Your task to perform on an android device: turn on location history Image 0: 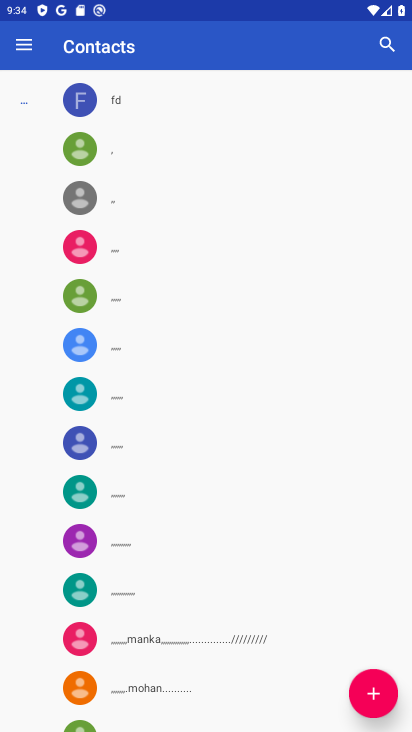
Step 0: press home button
Your task to perform on an android device: turn on location history Image 1: 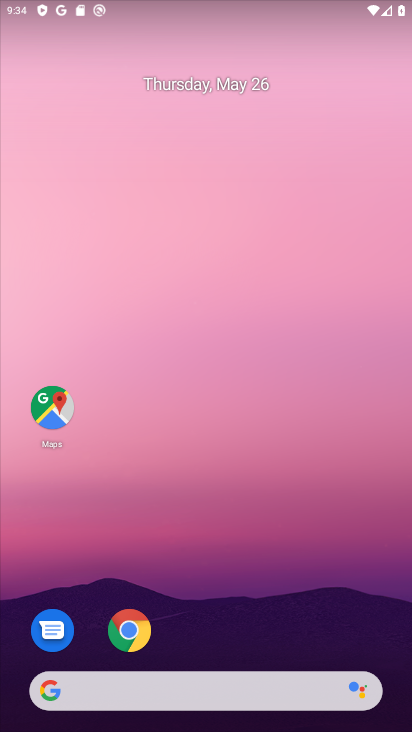
Step 1: drag from (206, 647) to (126, 219)
Your task to perform on an android device: turn on location history Image 2: 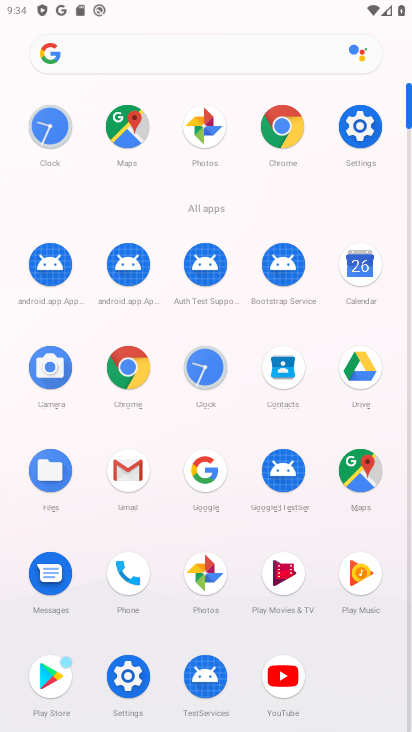
Step 2: click (345, 464)
Your task to perform on an android device: turn on location history Image 3: 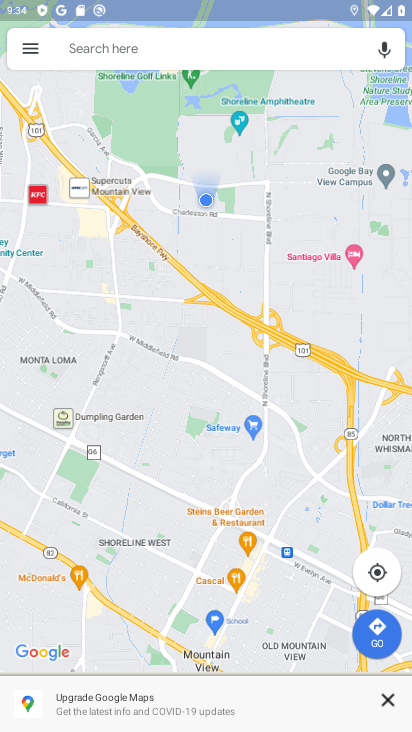
Step 3: click (23, 52)
Your task to perform on an android device: turn on location history Image 4: 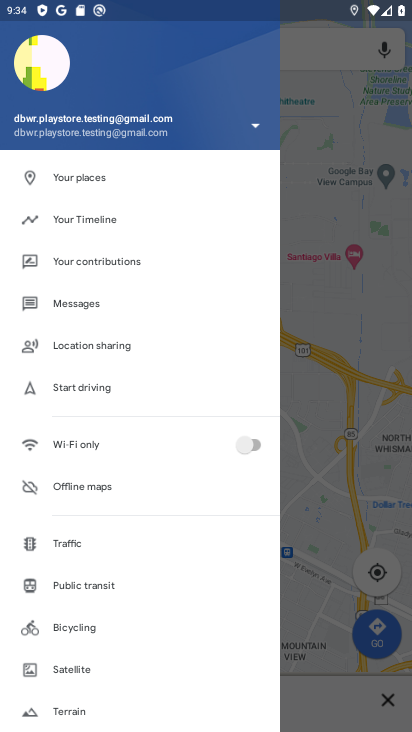
Step 4: click (82, 217)
Your task to perform on an android device: turn on location history Image 5: 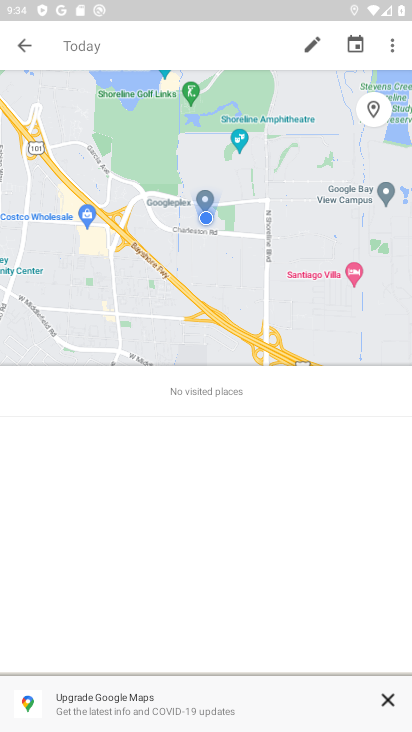
Step 5: click (394, 40)
Your task to perform on an android device: turn on location history Image 6: 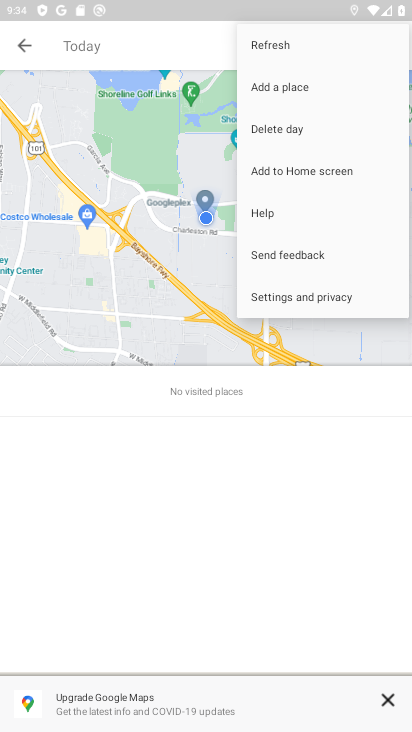
Step 6: click (280, 292)
Your task to perform on an android device: turn on location history Image 7: 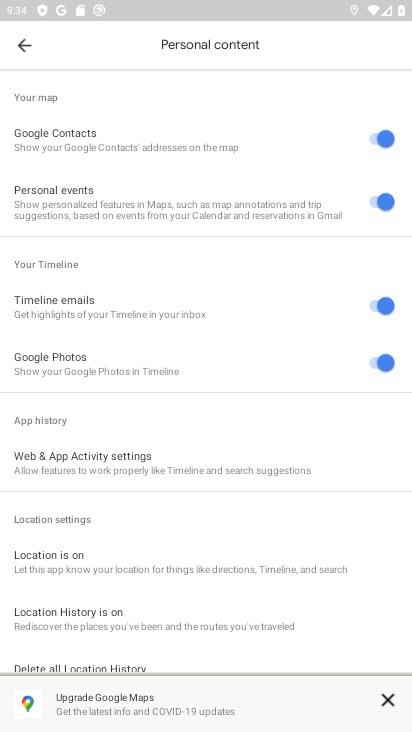
Step 7: click (69, 659)
Your task to perform on an android device: turn on location history Image 8: 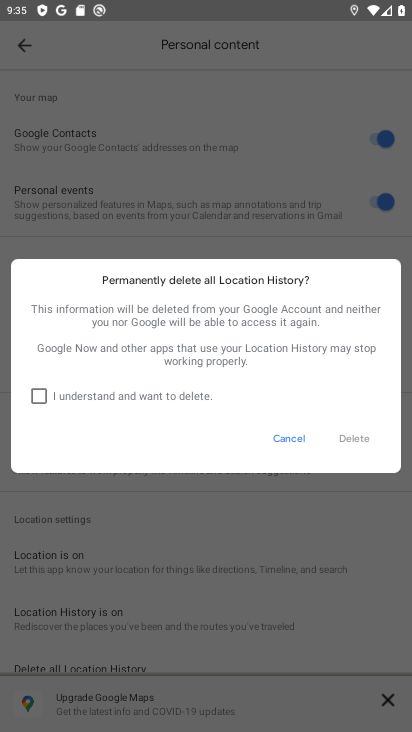
Step 8: click (43, 387)
Your task to perform on an android device: turn on location history Image 9: 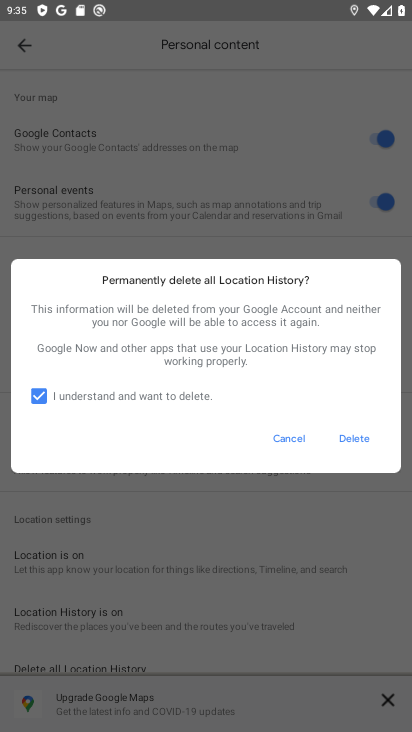
Step 9: click (352, 427)
Your task to perform on an android device: turn on location history Image 10: 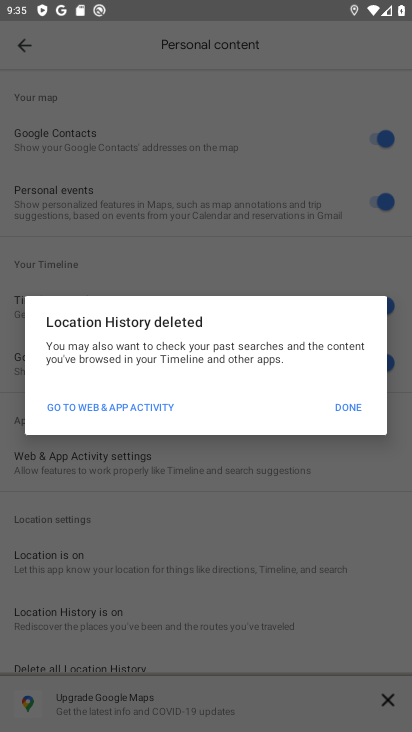
Step 10: click (355, 404)
Your task to perform on an android device: turn on location history Image 11: 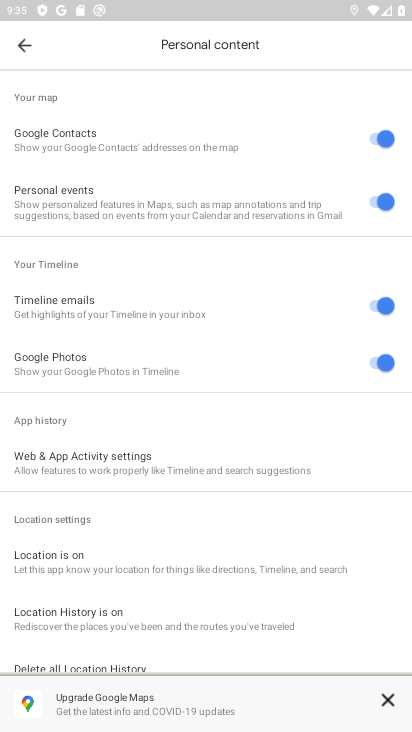
Step 11: task complete